Your task to perform on an android device: change the upload size in google photos Image 0: 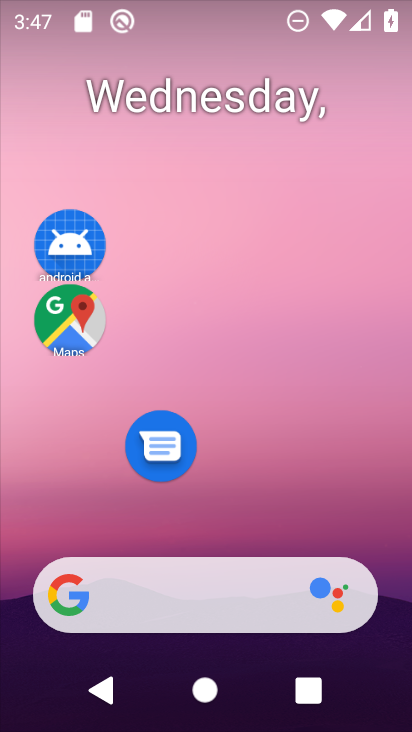
Step 0: drag from (272, 518) to (226, 110)
Your task to perform on an android device: change the upload size in google photos Image 1: 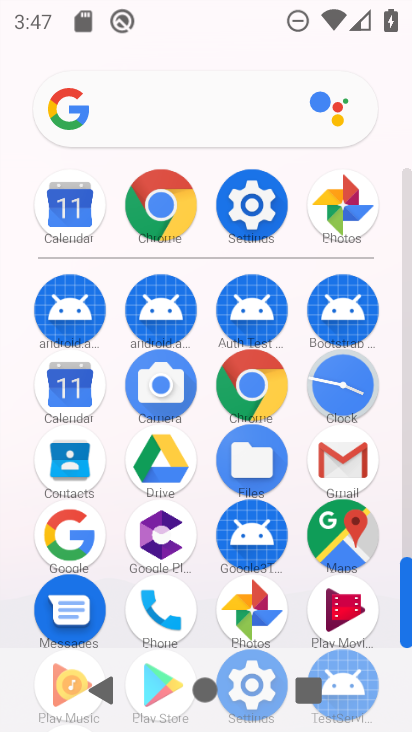
Step 1: click (235, 614)
Your task to perform on an android device: change the upload size in google photos Image 2: 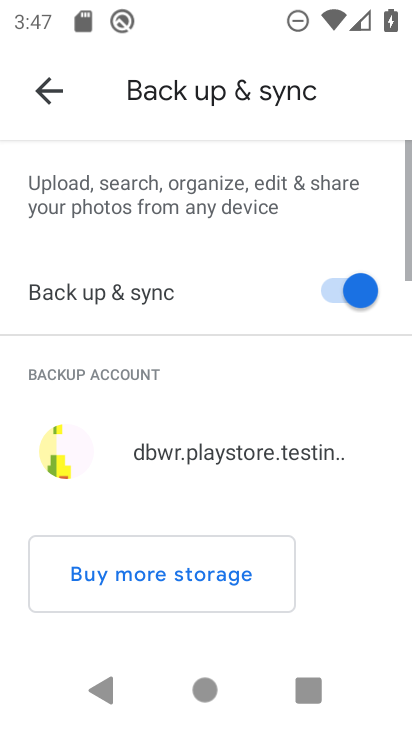
Step 2: click (131, 220)
Your task to perform on an android device: change the upload size in google photos Image 3: 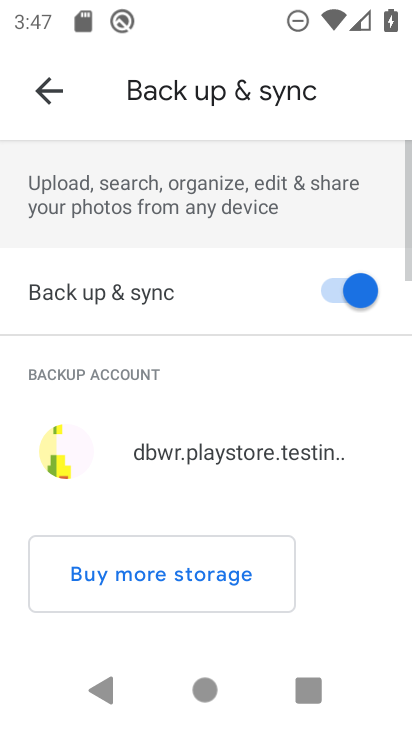
Step 3: drag from (156, 331) to (151, 130)
Your task to perform on an android device: change the upload size in google photos Image 4: 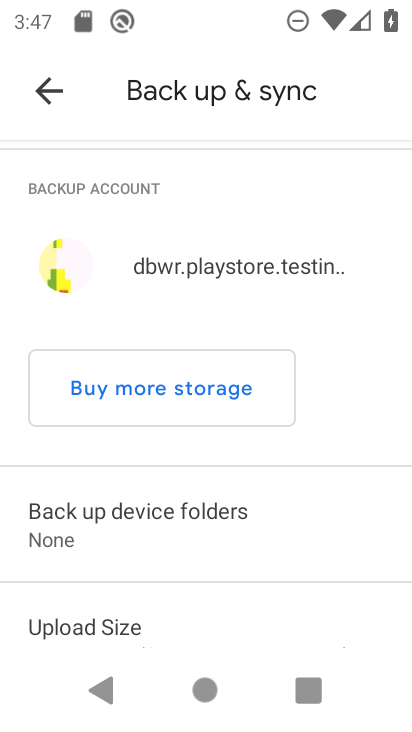
Step 4: click (147, 607)
Your task to perform on an android device: change the upload size in google photos Image 5: 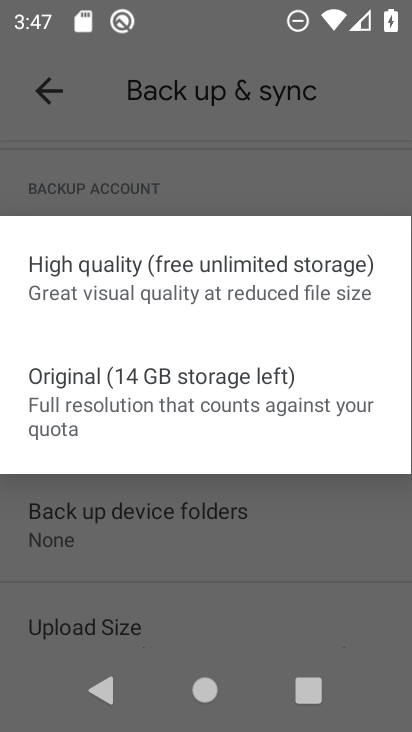
Step 5: click (269, 283)
Your task to perform on an android device: change the upload size in google photos Image 6: 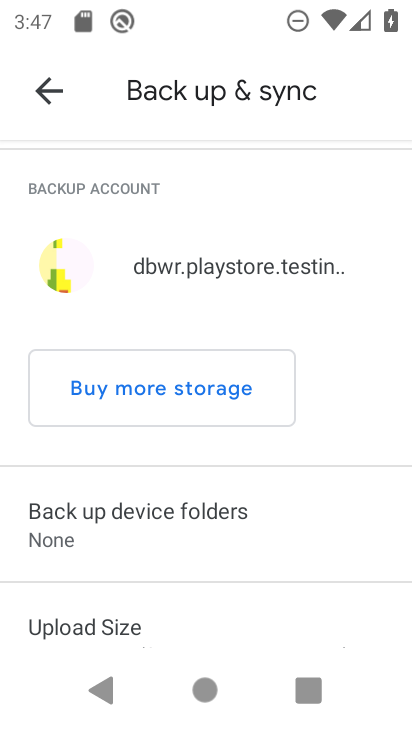
Step 6: task complete